Your task to perform on an android device: read, delete, or share a saved page in the chrome app Image 0: 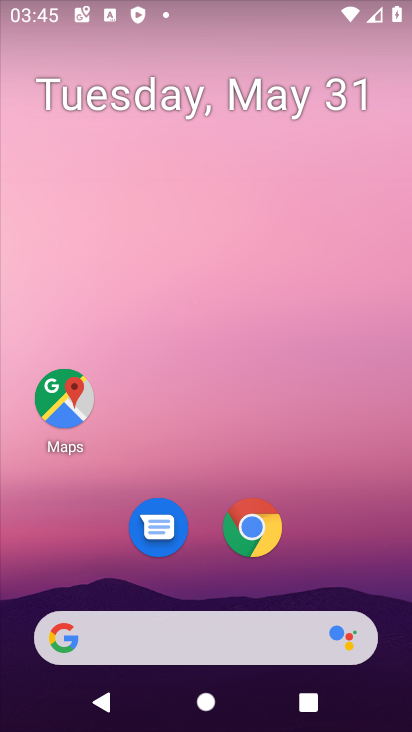
Step 0: click (256, 526)
Your task to perform on an android device: read, delete, or share a saved page in the chrome app Image 1: 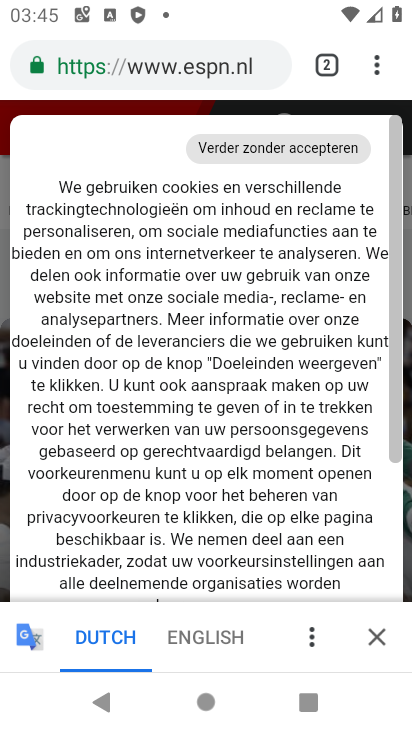
Step 1: click (372, 69)
Your task to perform on an android device: read, delete, or share a saved page in the chrome app Image 2: 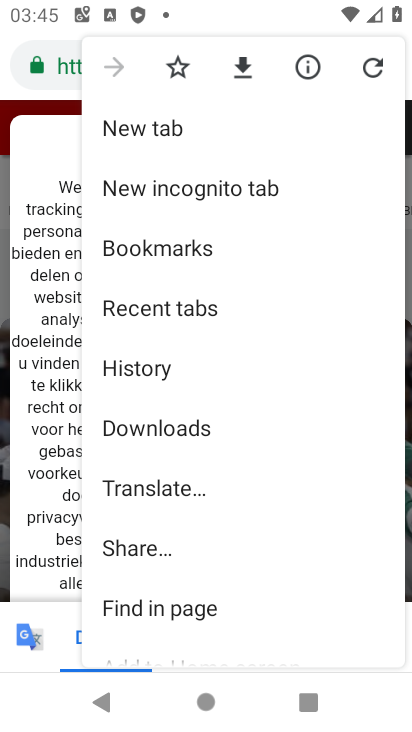
Step 2: click (158, 427)
Your task to perform on an android device: read, delete, or share a saved page in the chrome app Image 3: 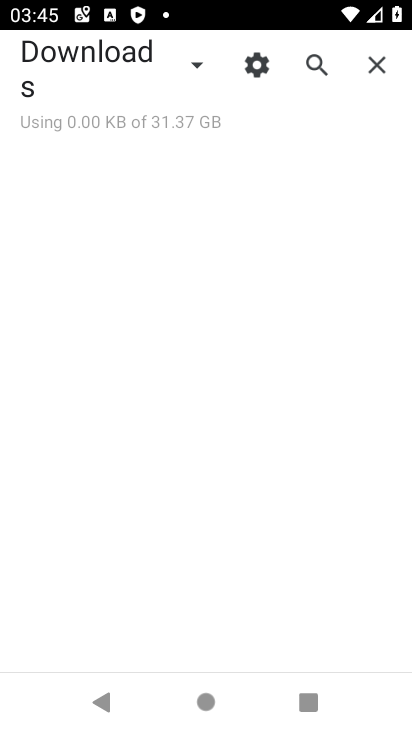
Step 3: click (200, 63)
Your task to perform on an android device: read, delete, or share a saved page in the chrome app Image 4: 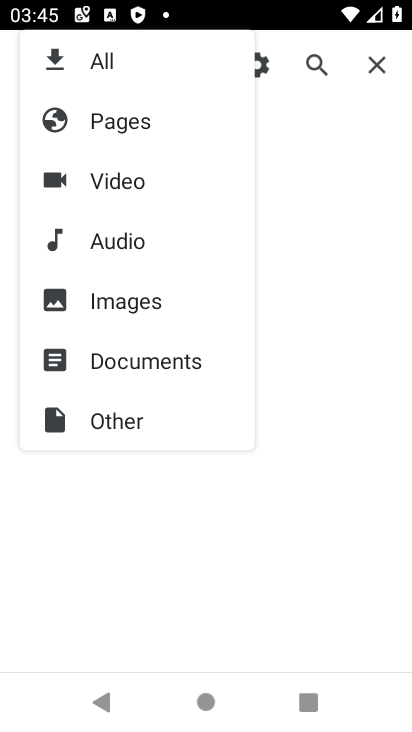
Step 4: click (102, 122)
Your task to perform on an android device: read, delete, or share a saved page in the chrome app Image 5: 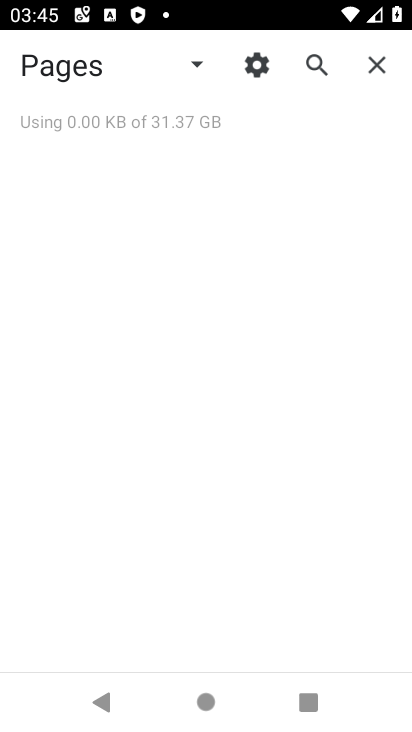
Step 5: task complete